Your task to perform on an android device: delete a single message in the gmail app Image 0: 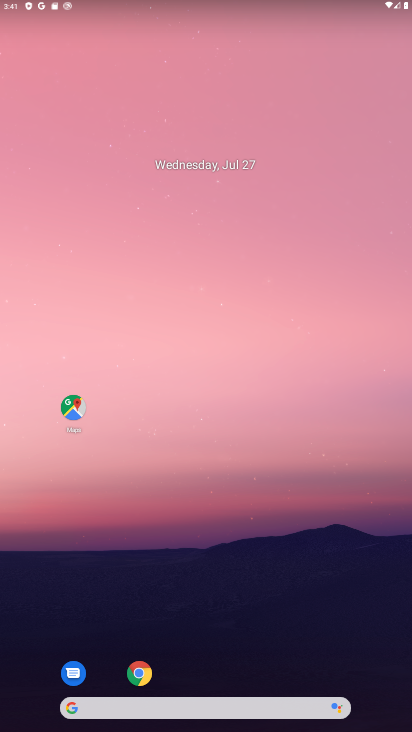
Step 0: drag from (237, 649) to (239, 155)
Your task to perform on an android device: delete a single message in the gmail app Image 1: 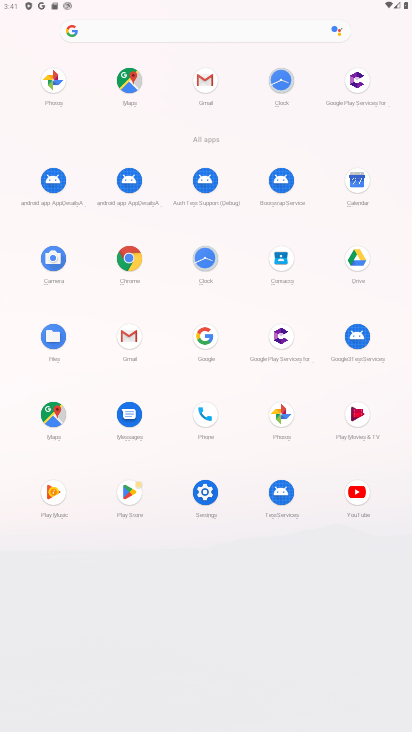
Step 1: click (206, 83)
Your task to perform on an android device: delete a single message in the gmail app Image 2: 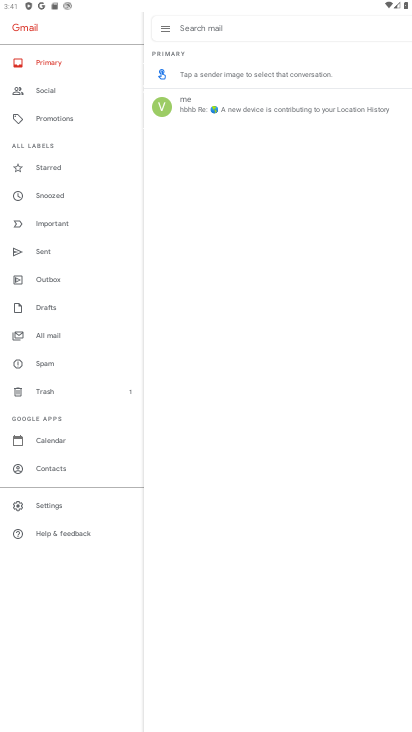
Step 2: click (262, 113)
Your task to perform on an android device: delete a single message in the gmail app Image 3: 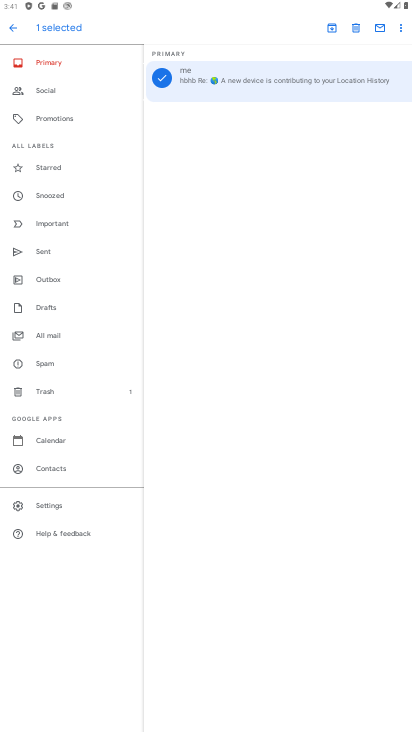
Step 3: click (359, 23)
Your task to perform on an android device: delete a single message in the gmail app Image 4: 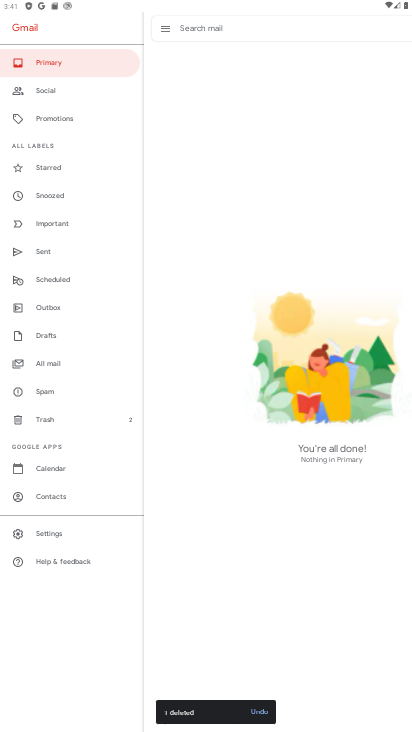
Step 4: task complete